Your task to perform on an android device: Go to Reddit.com Image 0: 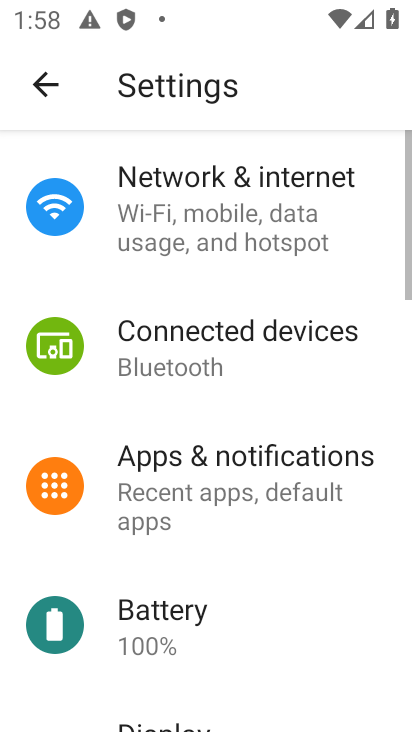
Step 0: press home button
Your task to perform on an android device: Go to Reddit.com Image 1: 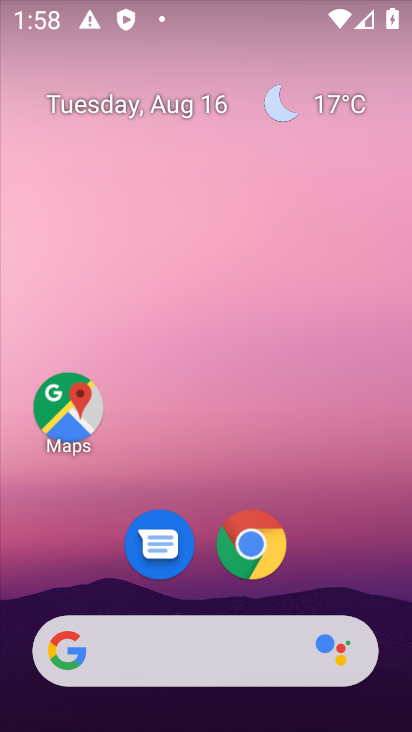
Step 1: drag from (200, 672) to (124, 85)
Your task to perform on an android device: Go to Reddit.com Image 2: 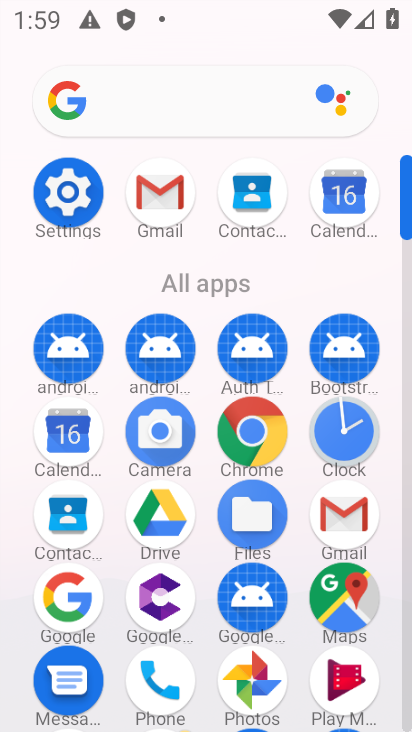
Step 2: click (252, 438)
Your task to perform on an android device: Go to Reddit.com Image 3: 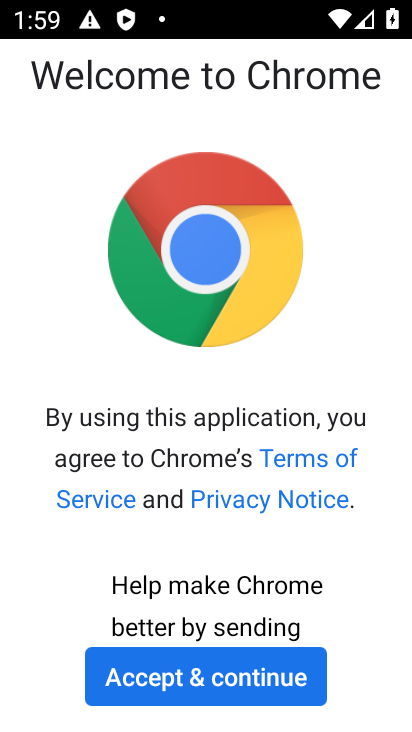
Step 3: click (199, 681)
Your task to perform on an android device: Go to Reddit.com Image 4: 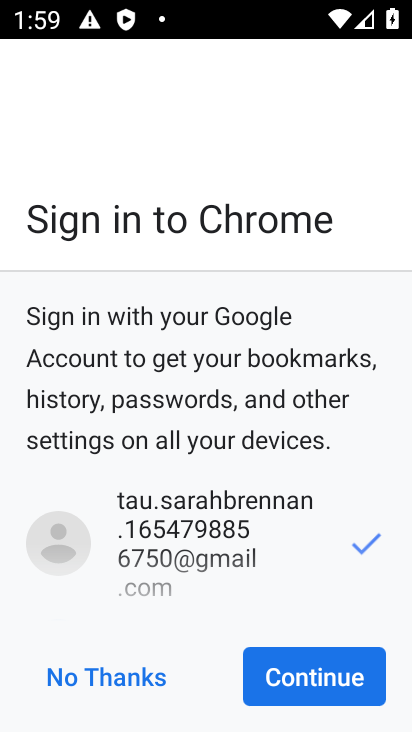
Step 4: click (305, 677)
Your task to perform on an android device: Go to Reddit.com Image 5: 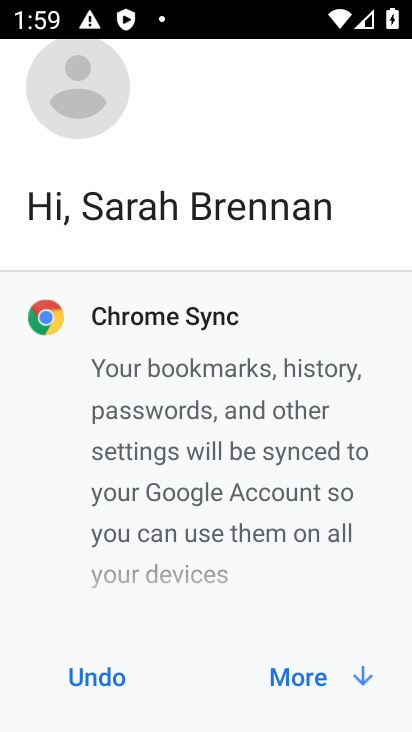
Step 5: click (305, 677)
Your task to perform on an android device: Go to Reddit.com Image 6: 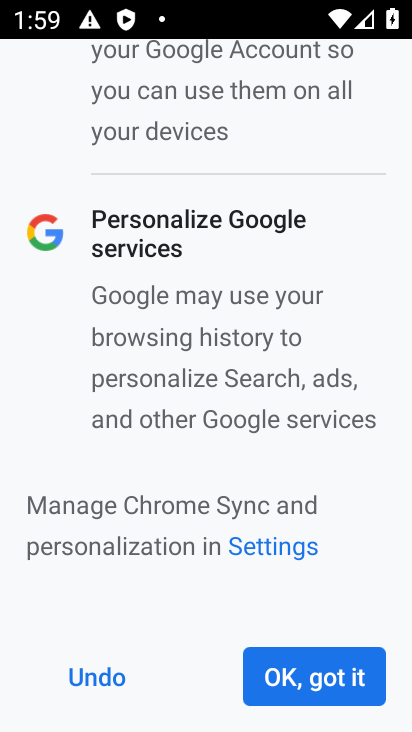
Step 6: click (305, 677)
Your task to perform on an android device: Go to Reddit.com Image 7: 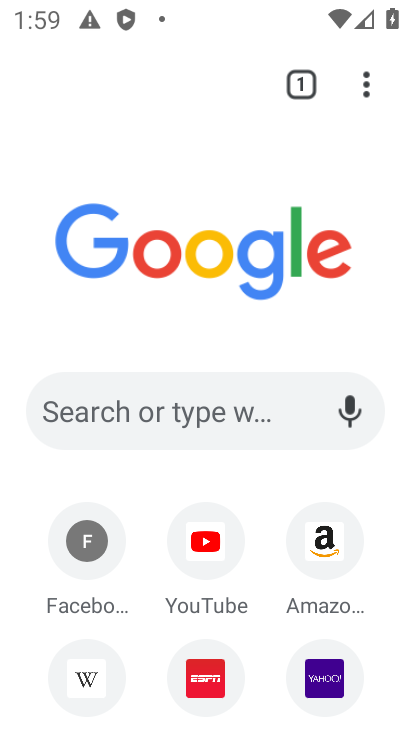
Step 7: click (244, 417)
Your task to perform on an android device: Go to Reddit.com Image 8: 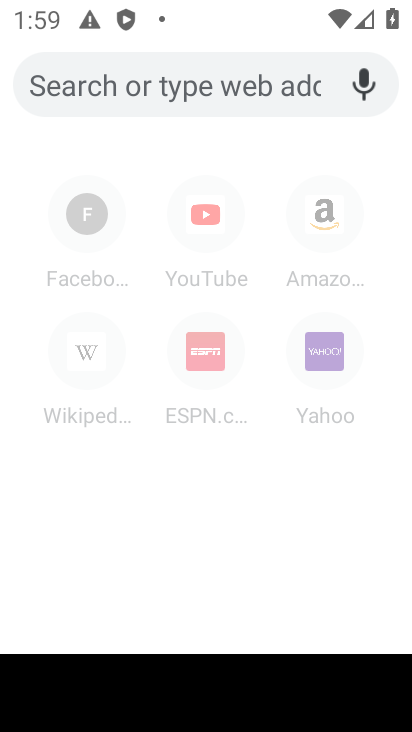
Step 8: type "Reddit.com"
Your task to perform on an android device: Go to Reddit.com Image 9: 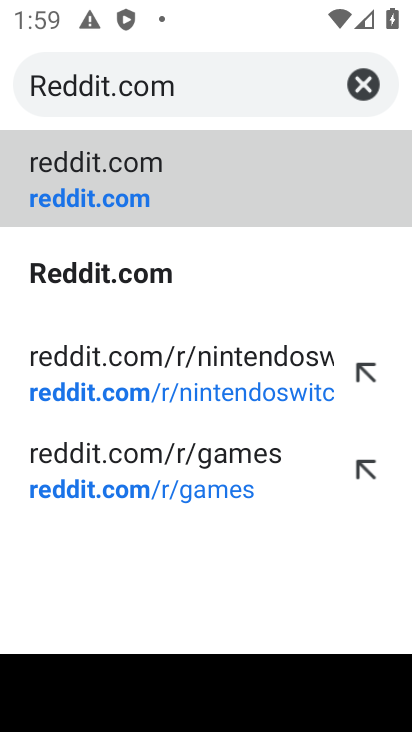
Step 9: click (123, 272)
Your task to perform on an android device: Go to Reddit.com Image 10: 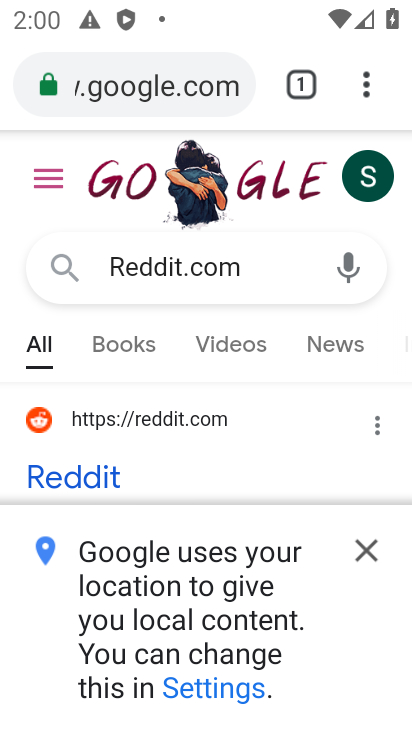
Step 10: click (370, 552)
Your task to perform on an android device: Go to Reddit.com Image 11: 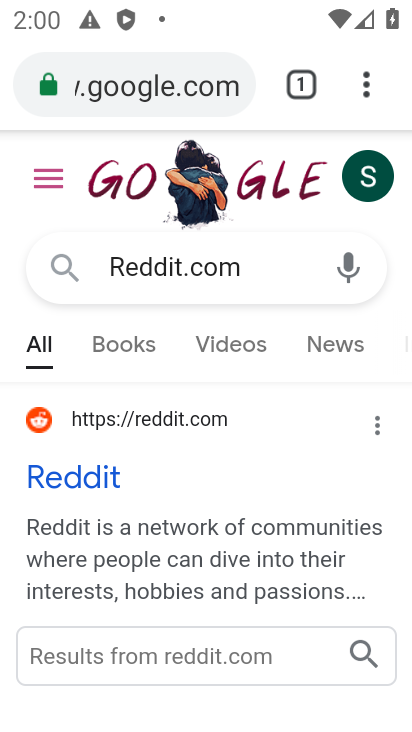
Step 11: click (98, 484)
Your task to perform on an android device: Go to Reddit.com Image 12: 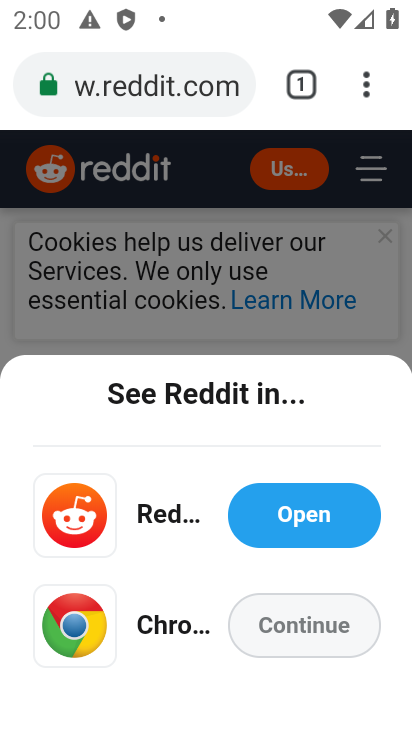
Step 12: click (302, 627)
Your task to perform on an android device: Go to Reddit.com Image 13: 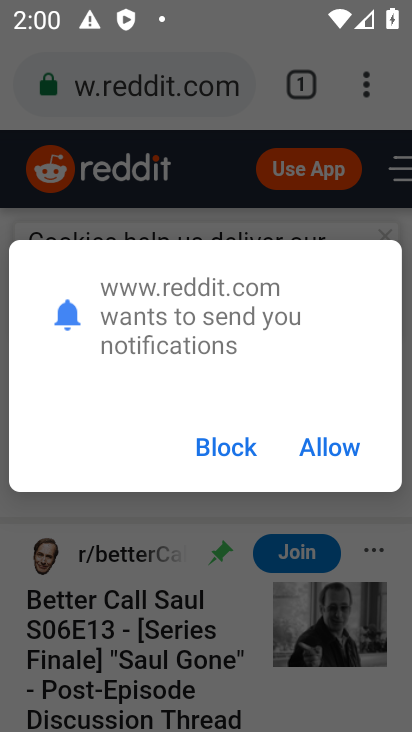
Step 13: click (322, 458)
Your task to perform on an android device: Go to Reddit.com Image 14: 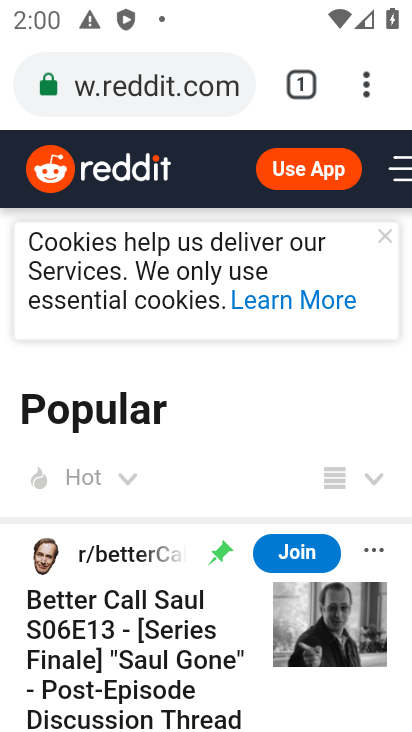
Step 14: task complete